Your task to perform on an android device: Open the phone app and click the voicemail tab. Image 0: 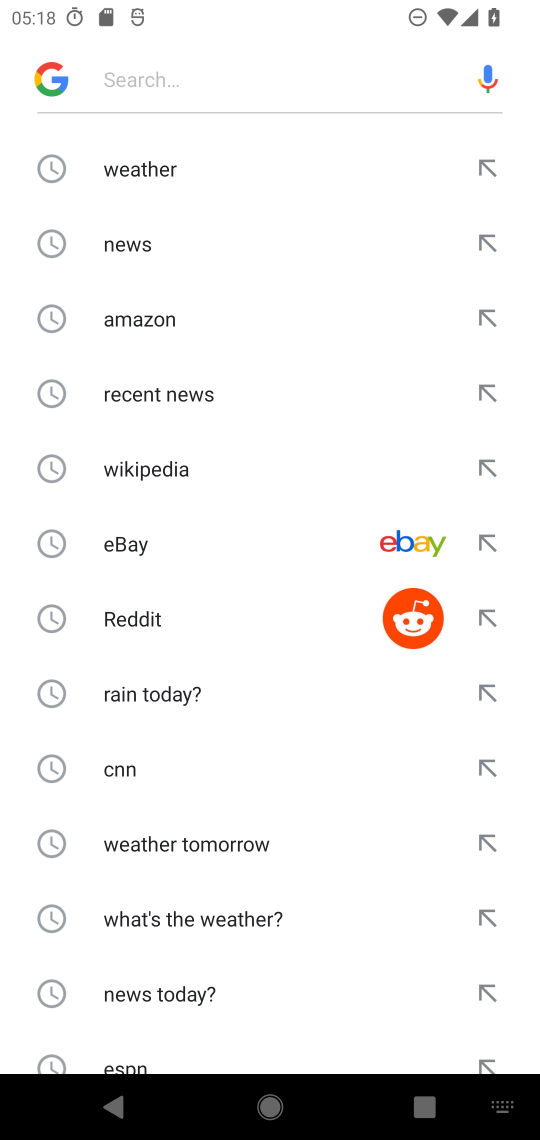
Step 0: press home button
Your task to perform on an android device: Open the phone app and click the voicemail tab. Image 1: 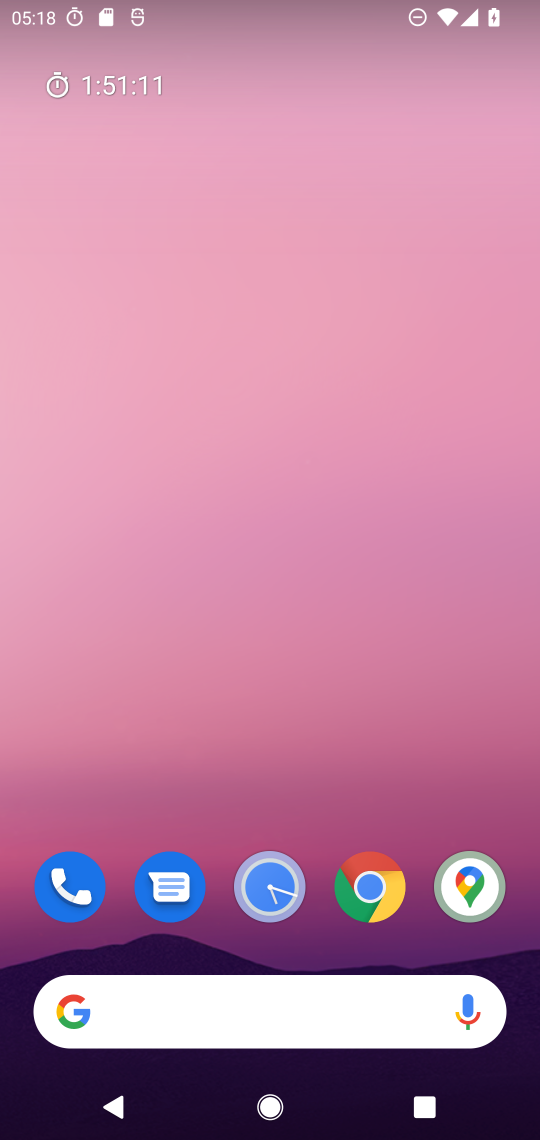
Step 1: drag from (367, 792) to (415, 306)
Your task to perform on an android device: Open the phone app and click the voicemail tab. Image 2: 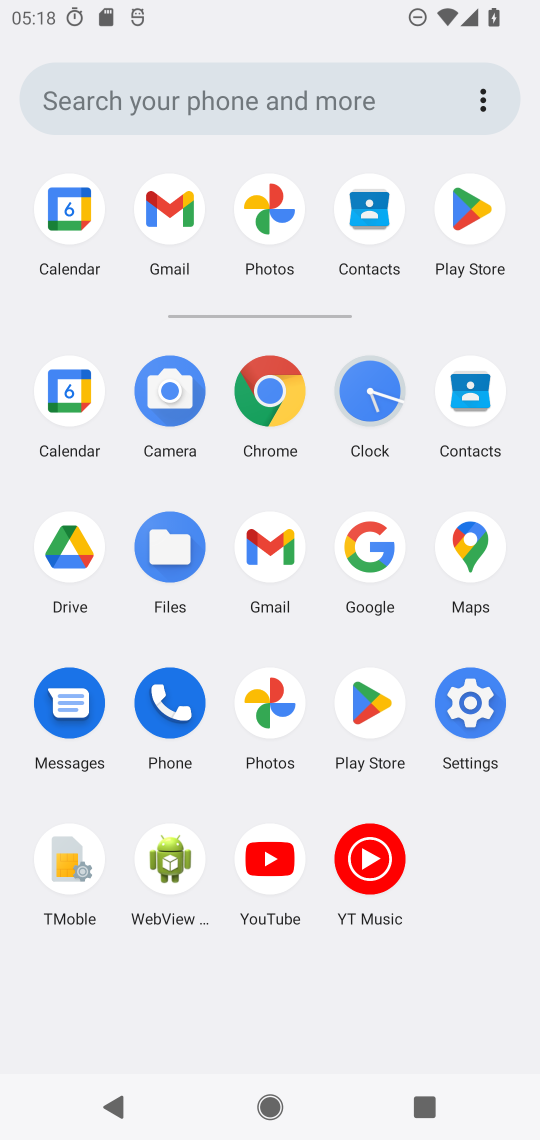
Step 2: click (164, 701)
Your task to perform on an android device: Open the phone app and click the voicemail tab. Image 3: 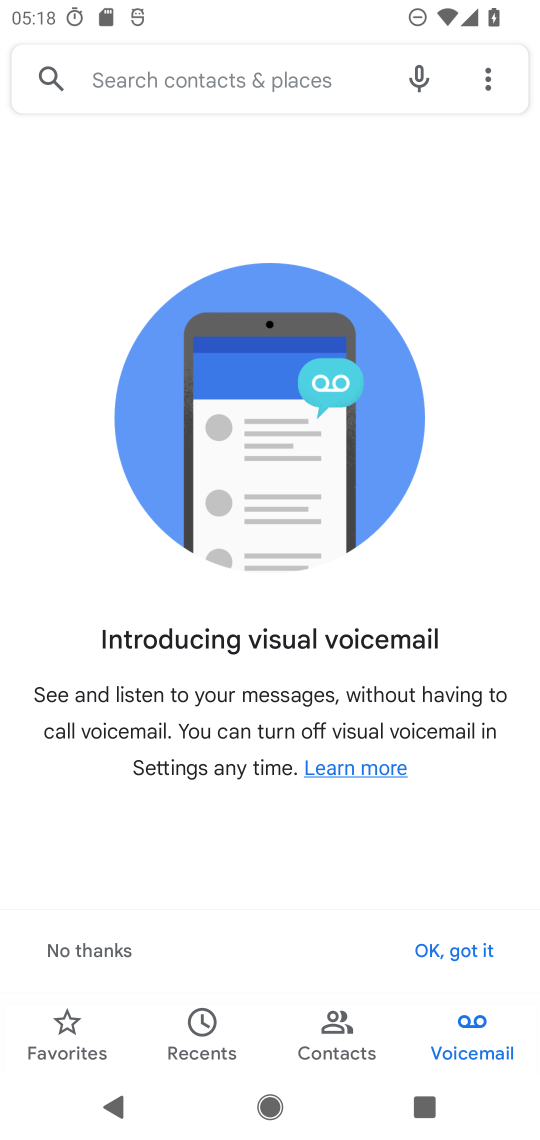
Step 3: task complete